Your task to perform on an android device: Search for the best rated electric lawnmower on Home Depot Image 0: 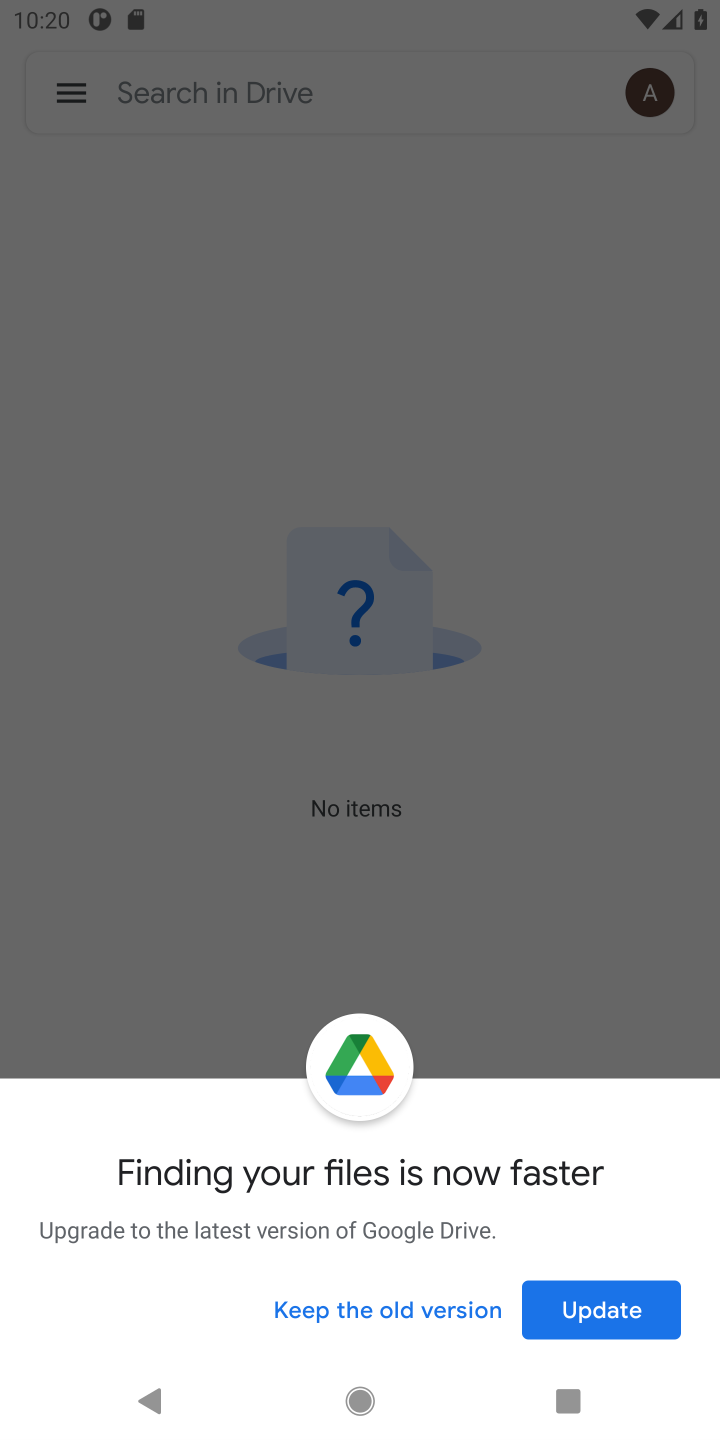
Step 0: press home button
Your task to perform on an android device: Search for the best rated electric lawnmower on Home Depot Image 1: 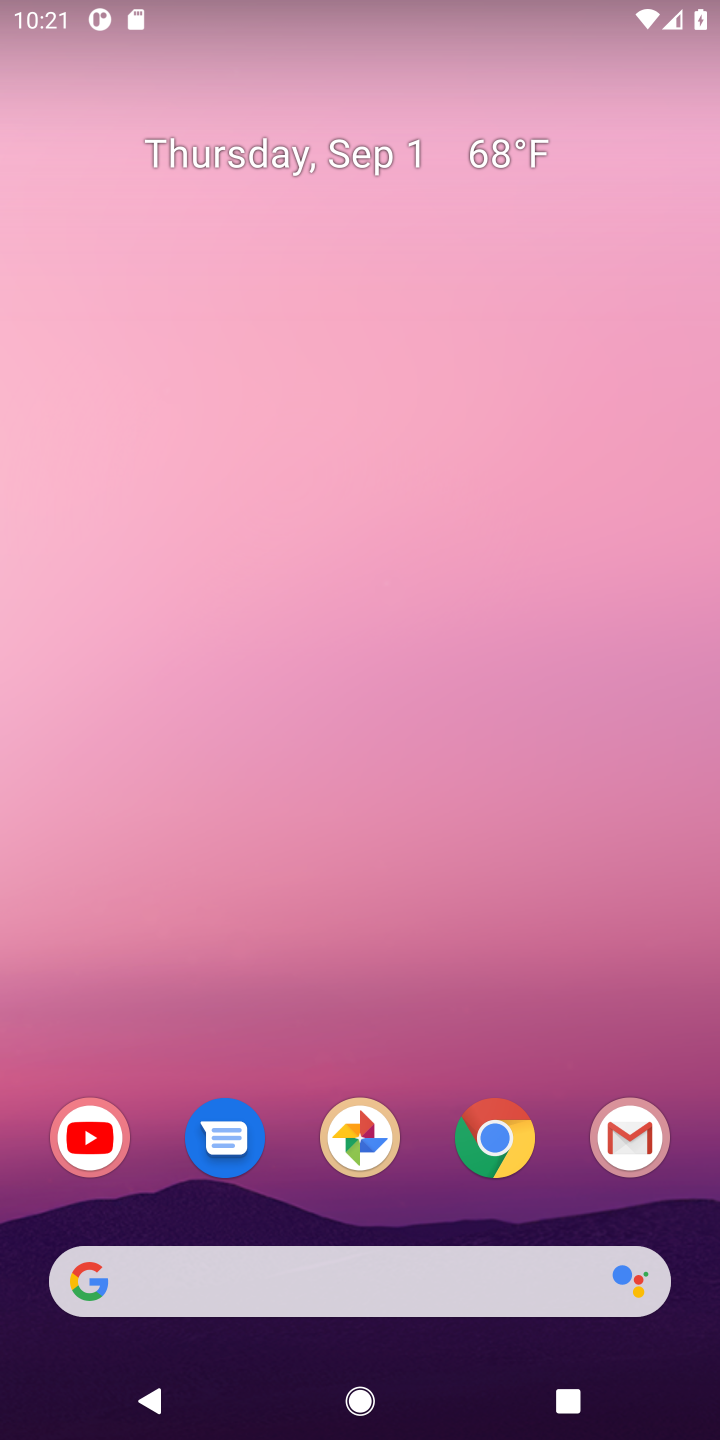
Step 1: click (489, 1151)
Your task to perform on an android device: Search for the best rated electric lawnmower on Home Depot Image 2: 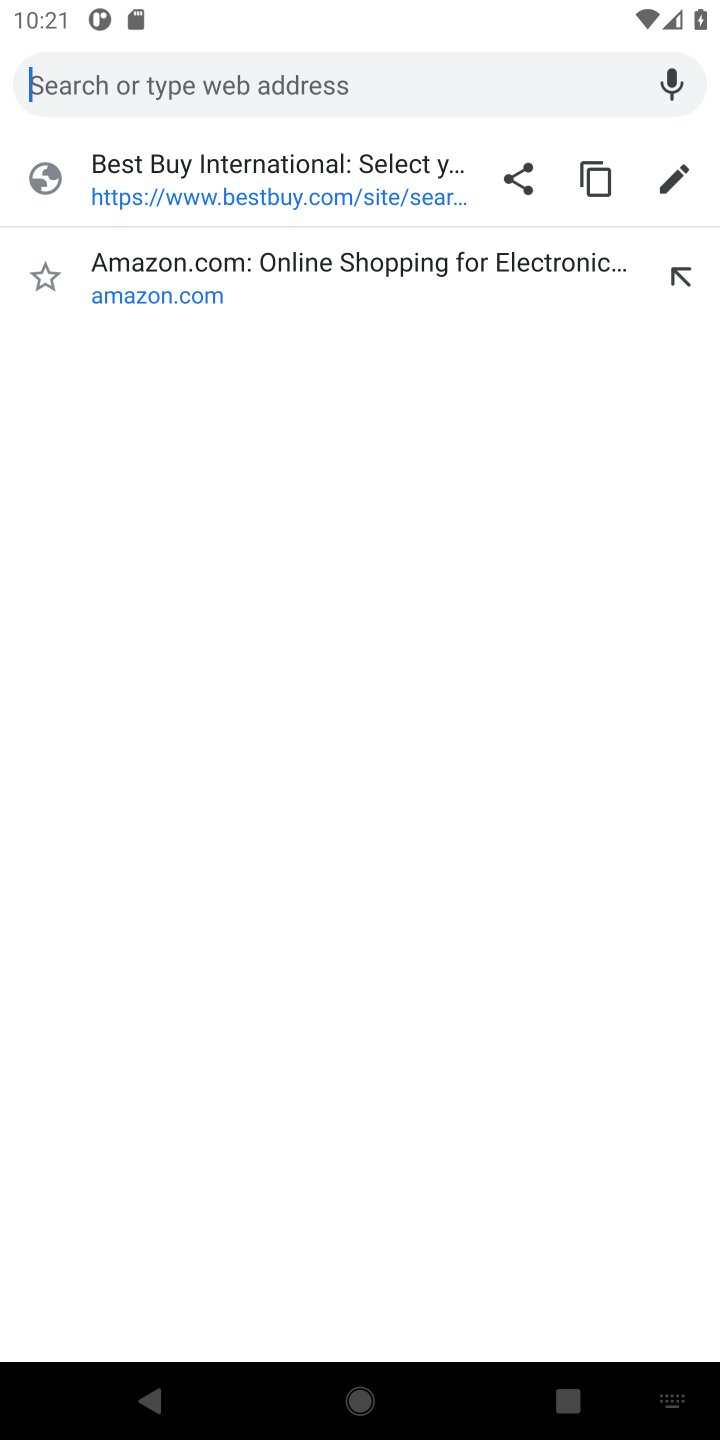
Step 2: click (362, 82)
Your task to perform on an android device: Search for the best rated electric lawnmower on Home Depot Image 3: 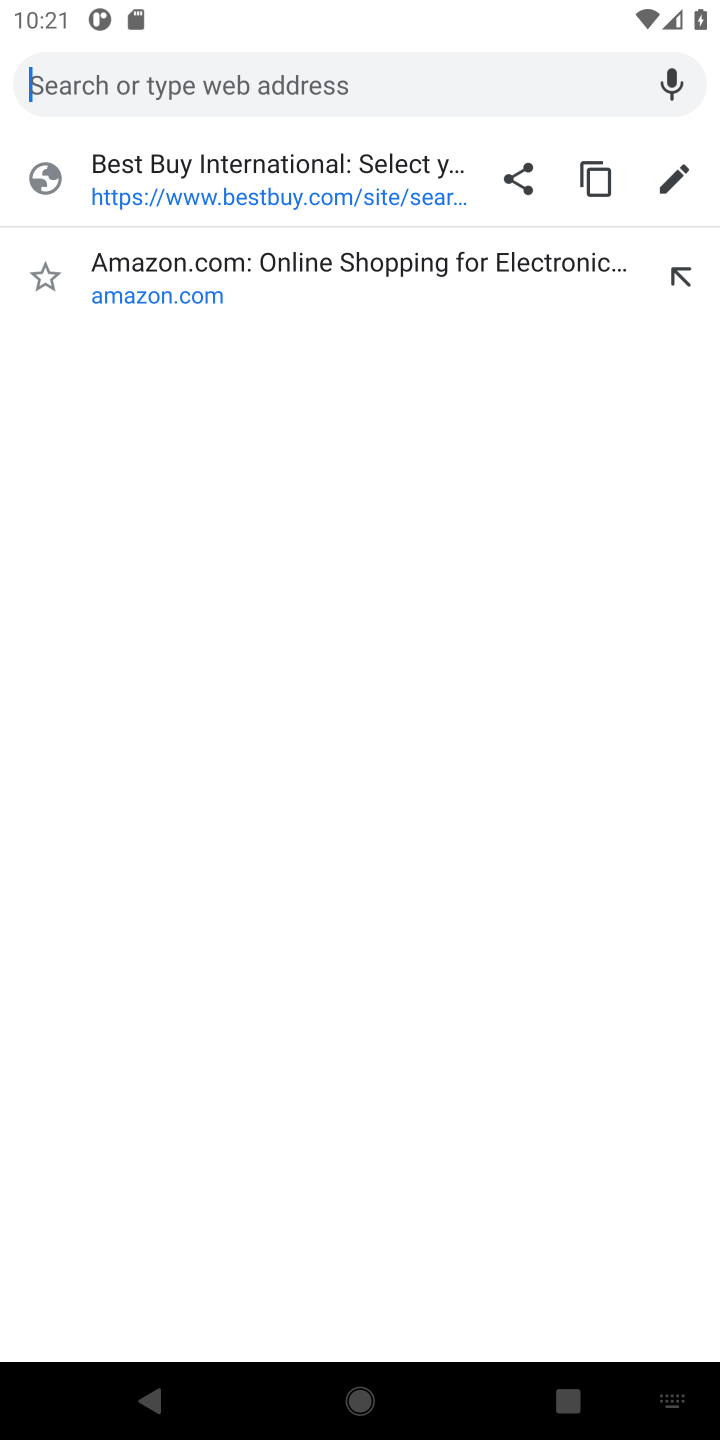
Step 3: type "the best rated electric lawnmower on Home Depot"
Your task to perform on an android device: Search for the best rated electric lawnmower on Home Depot Image 4: 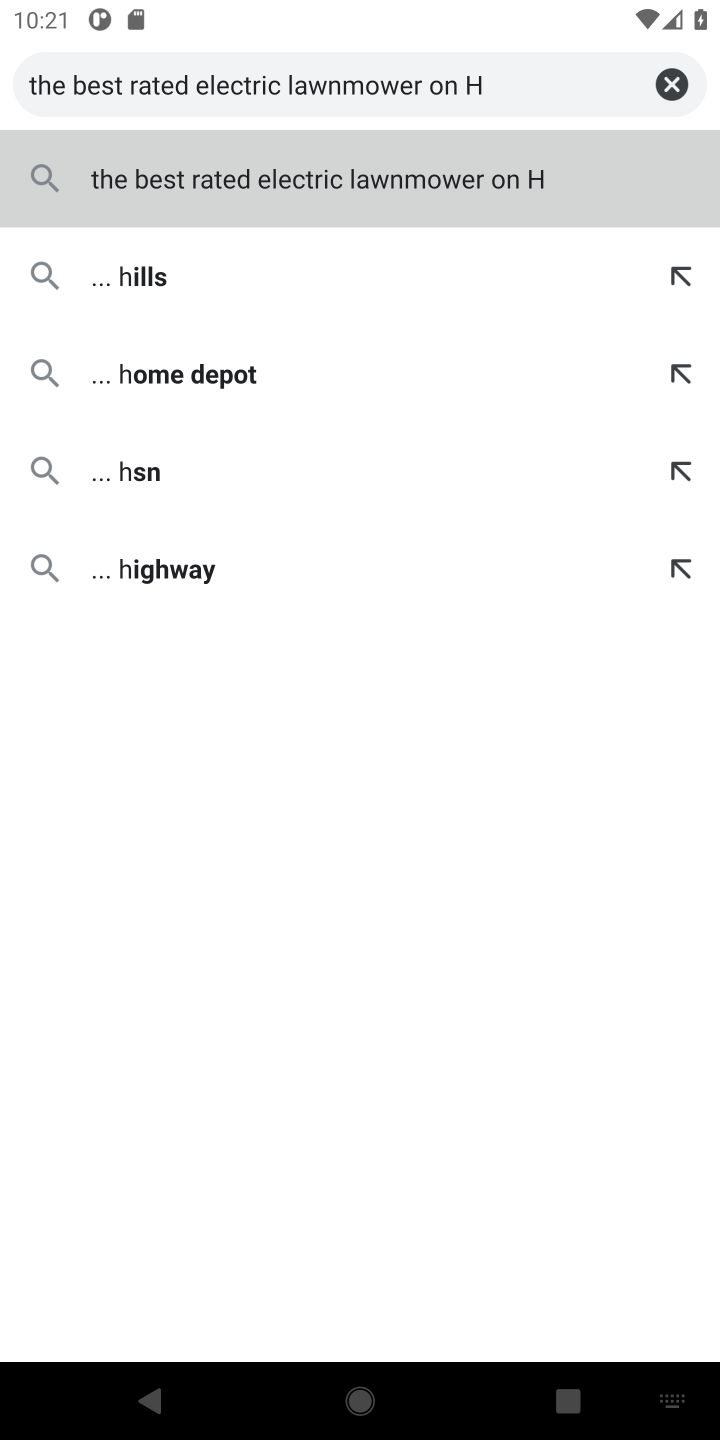
Step 4: click (444, 174)
Your task to perform on an android device: Search for the best rated electric lawnmower on Home Depot Image 5: 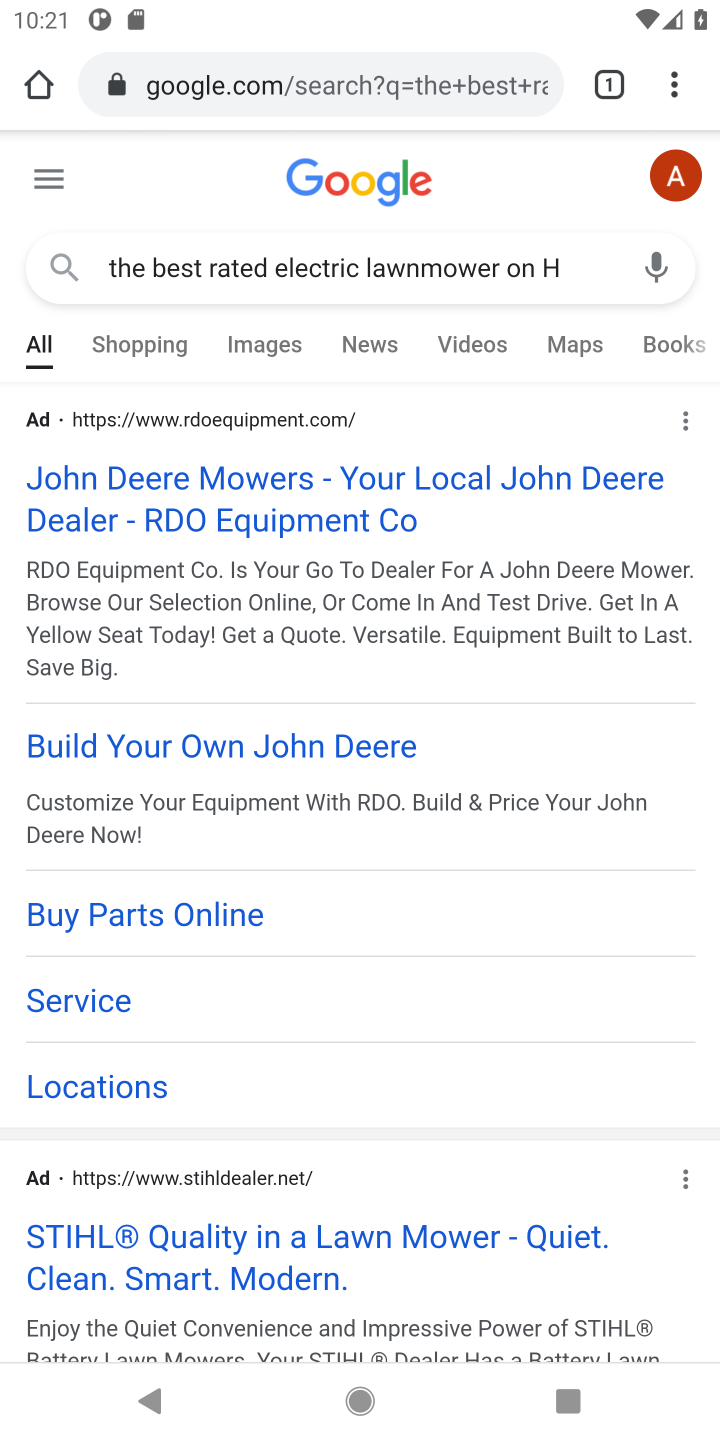
Step 5: click (290, 500)
Your task to perform on an android device: Search for the best rated electric lawnmower on Home Depot Image 6: 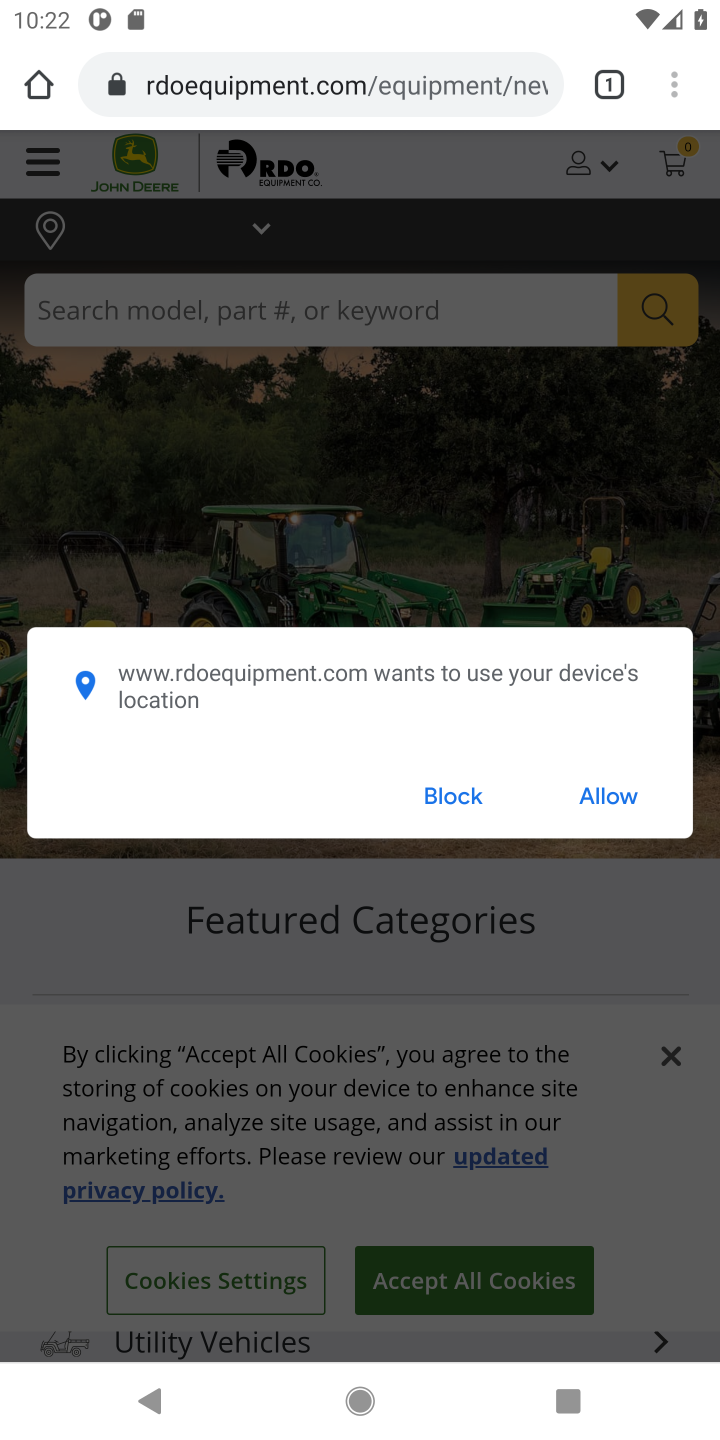
Step 6: click (593, 796)
Your task to perform on an android device: Search for the best rated electric lawnmower on Home Depot Image 7: 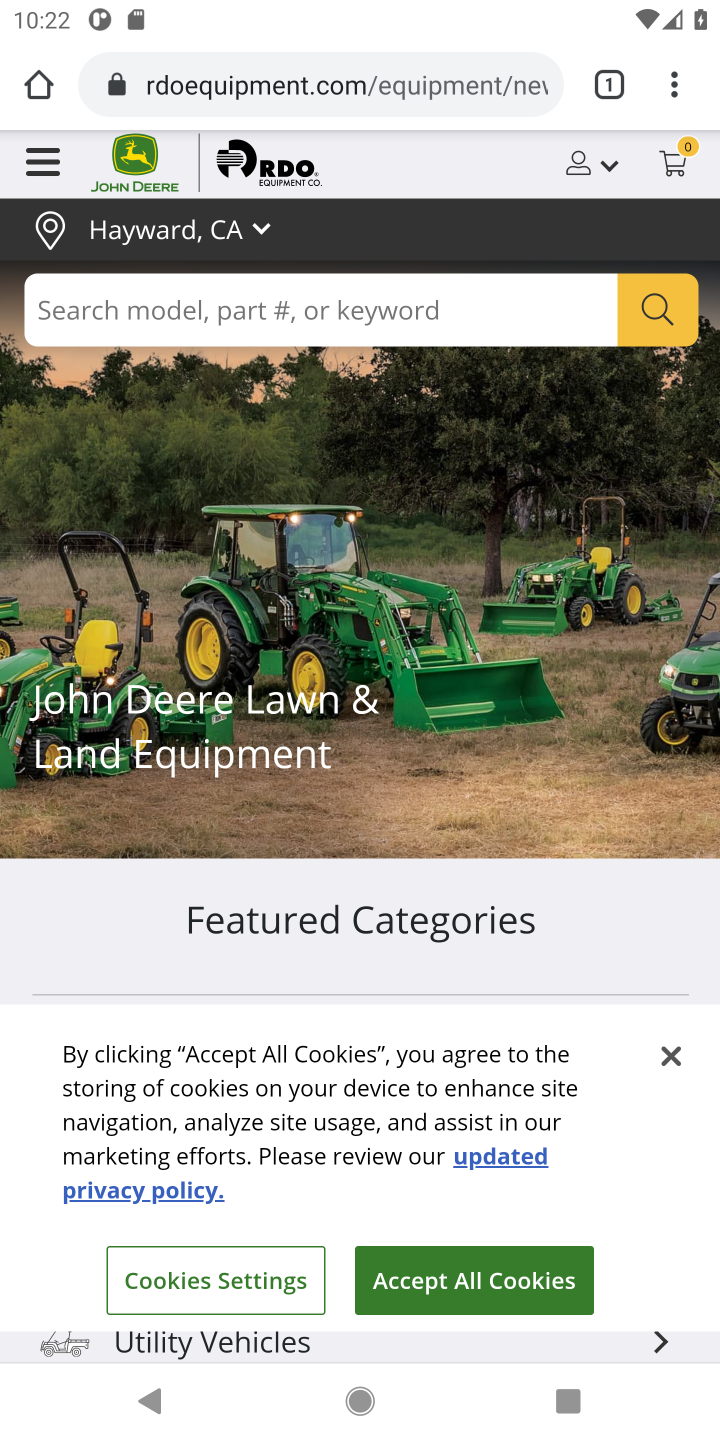
Step 7: task complete